Your task to perform on an android device: turn off wifi Image 0: 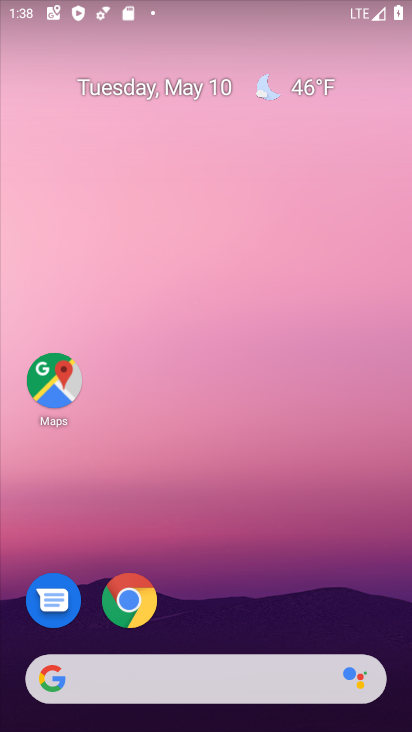
Step 0: drag from (178, 656) to (259, 155)
Your task to perform on an android device: turn off wifi Image 1: 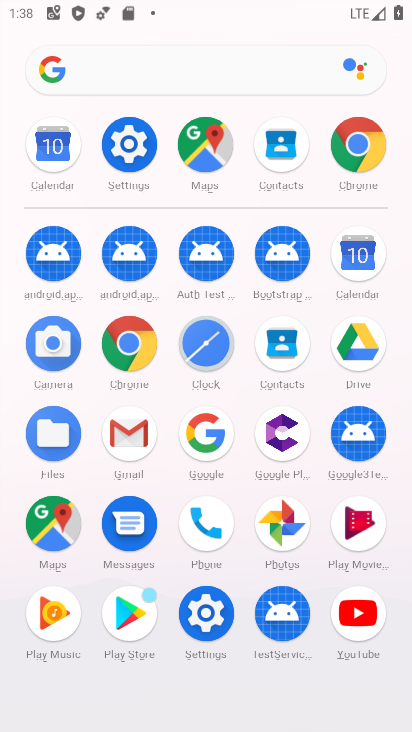
Step 1: click (122, 143)
Your task to perform on an android device: turn off wifi Image 2: 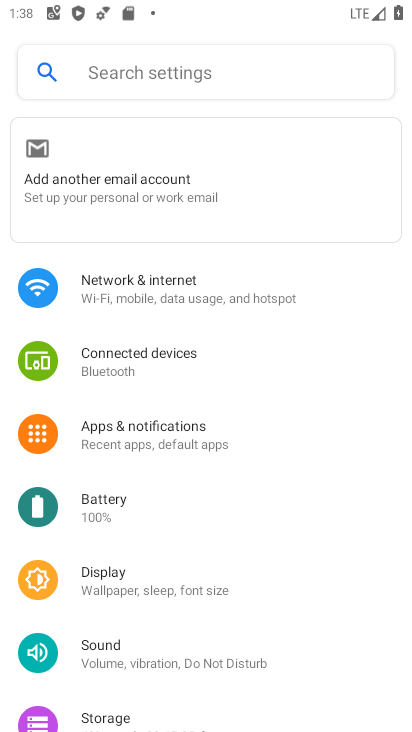
Step 2: click (150, 292)
Your task to perform on an android device: turn off wifi Image 3: 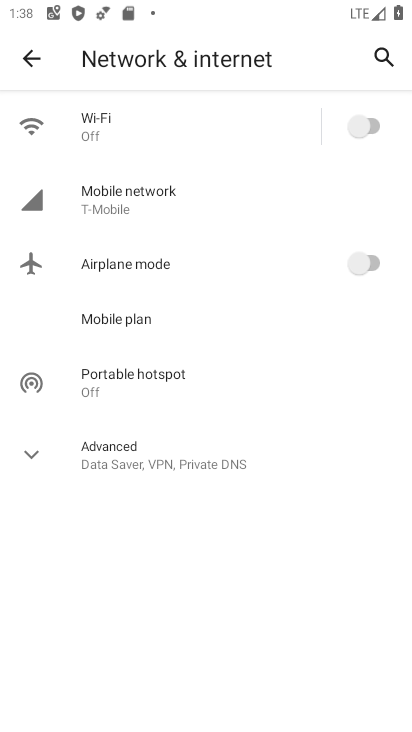
Step 3: task complete